Your task to perform on an android device: Is it going to rain today? Image 0: 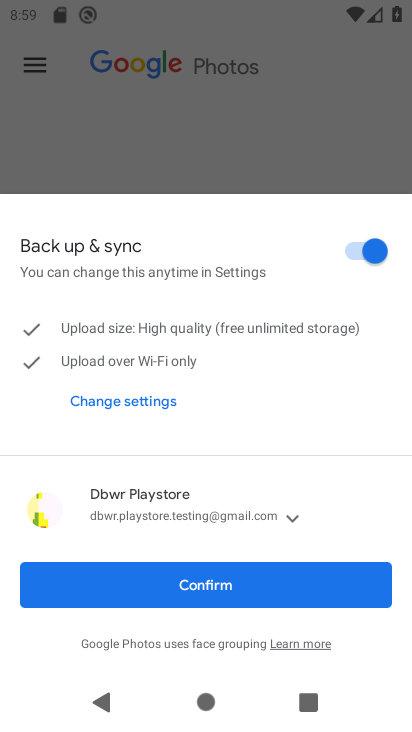
Step 0: click (206, 580)
Your task to perform on an android device: Is it going to rain today? Image 1: 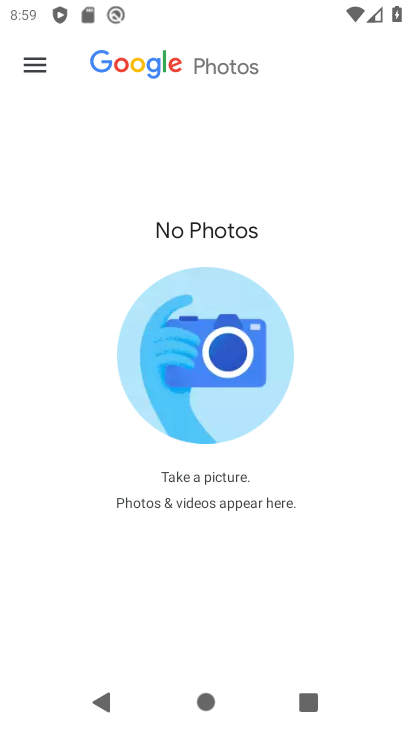
Step 1: press home button
Your task to perform on an android device: Is it going to rain today? Image 2: 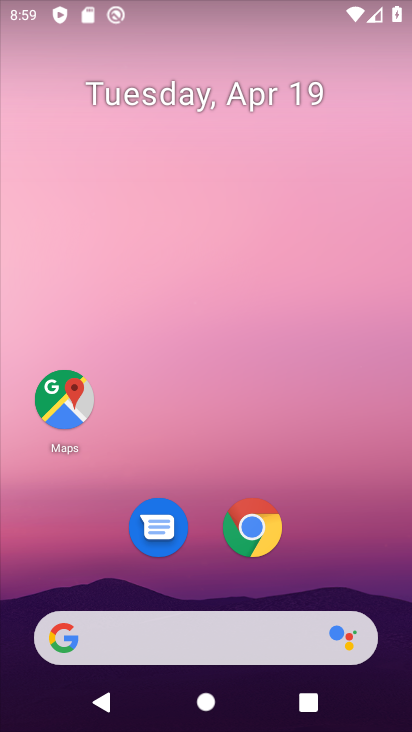
Step 2: click (200, 638)
Your task to perform on an android device: Is it going to rain today? Image 3: 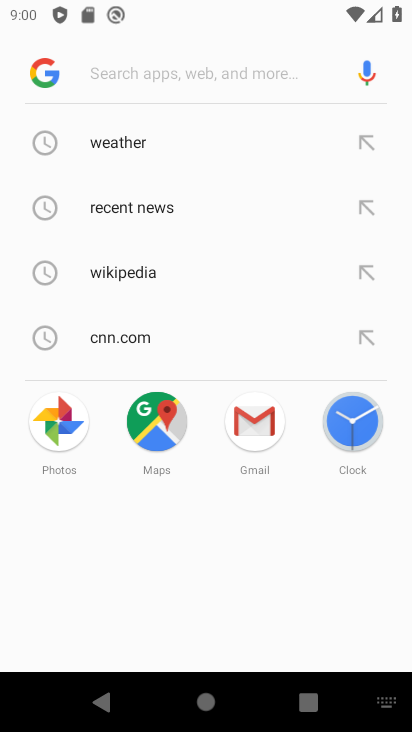
Step 3: click (133, 145)
Your task to perform on an android device: Is it going to rain today? Image 4: 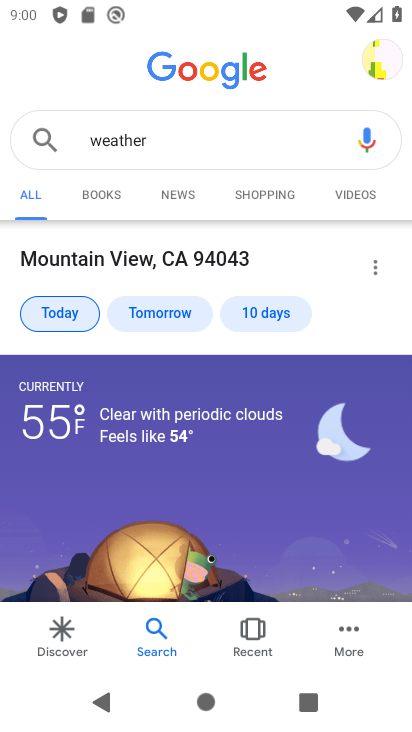
Step 4: task complete